Your task to perform on an android device: find photos in the google photos app Image 0: 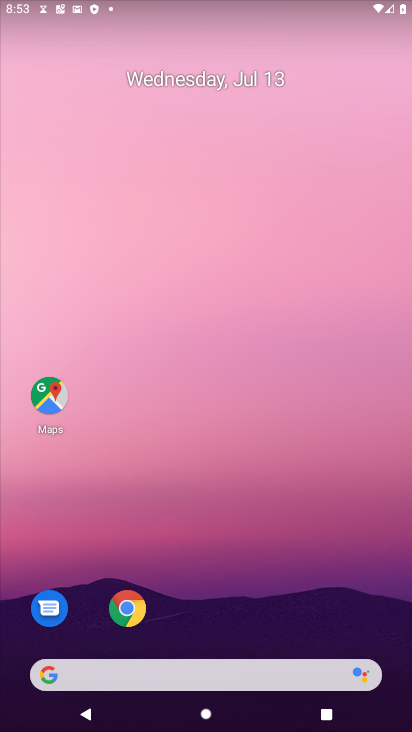
Step 0: drag from (159, 638) to (278, 20)
Your task to perform on an android device: find photos in the google photos app Image 1: 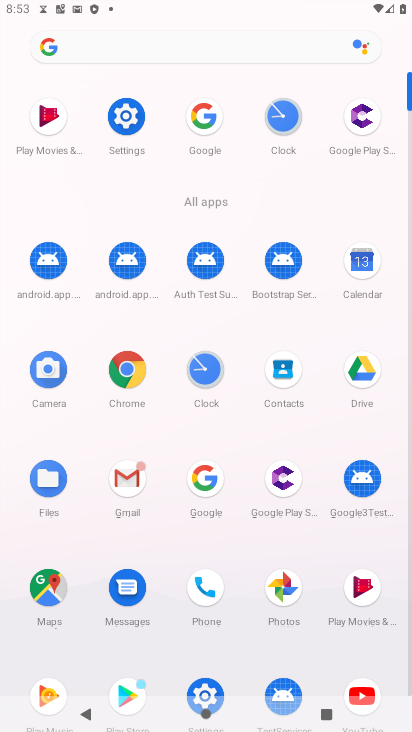
Step 1: click (285, 596)
Your task to perform on an android device: find photos in the google photos app Image 2: 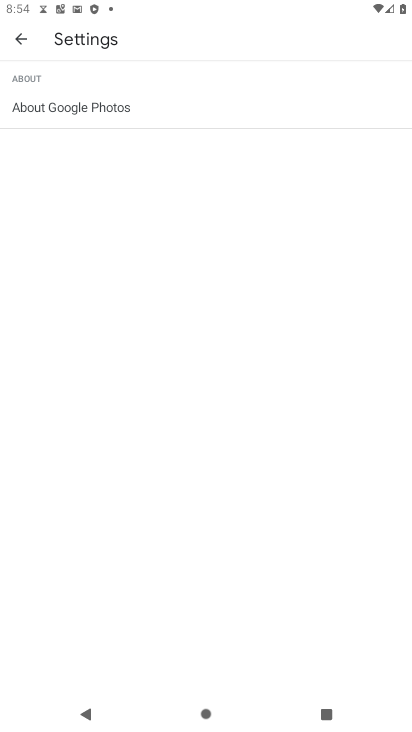
Step 2: press back button
Your task to perform on an android device: find photos in the google photos app Image 3: 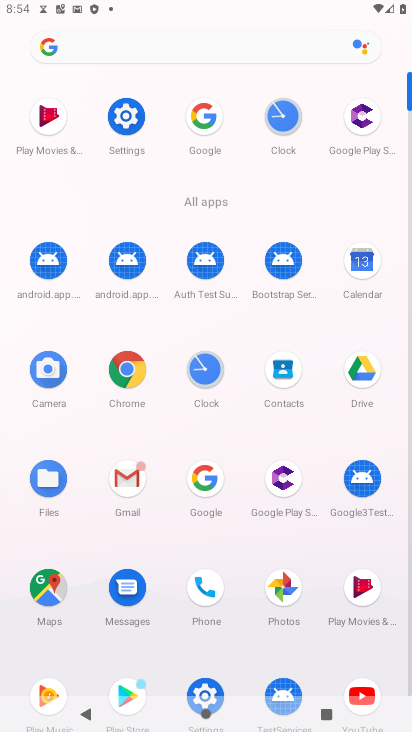
Step 3: click (280, 592)
Your task to perform on an android device: find photos in the google photos app Image 4: 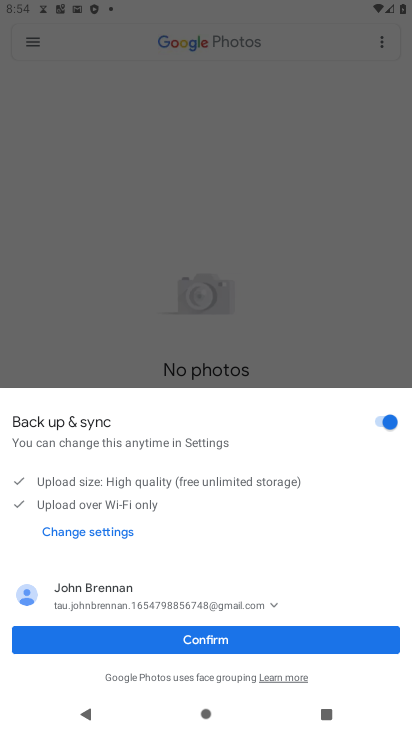
Step 4: click (211, 641)
Your task to perform on an android device: find photos in the google photos app Image 5: 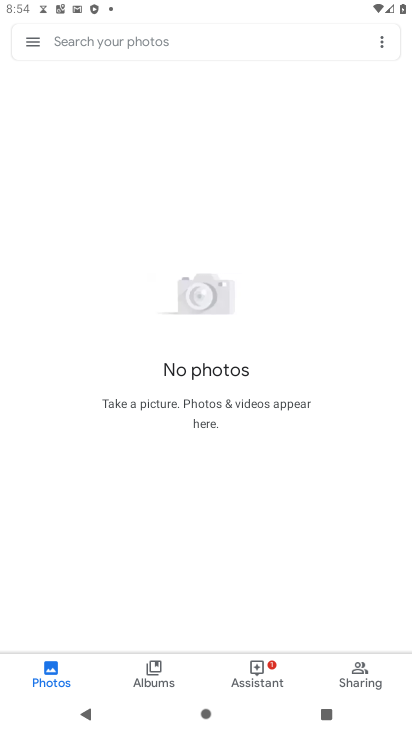
Step 5: task complete